Your task to perform on an android device: See recent photos Image 0: 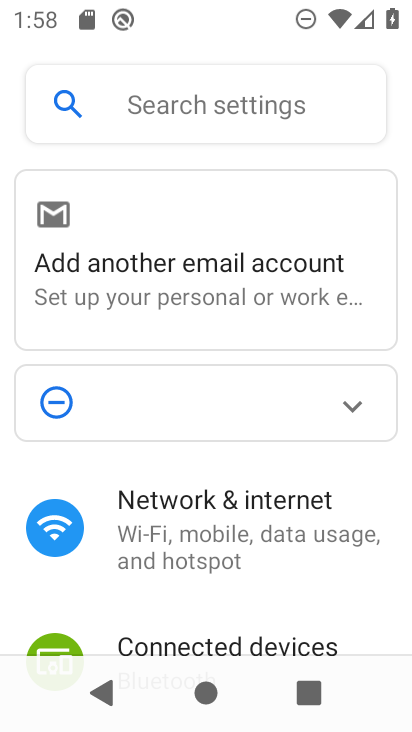
Step 0: press home button
Your task to perform on an android device: See recent photos Image 1: 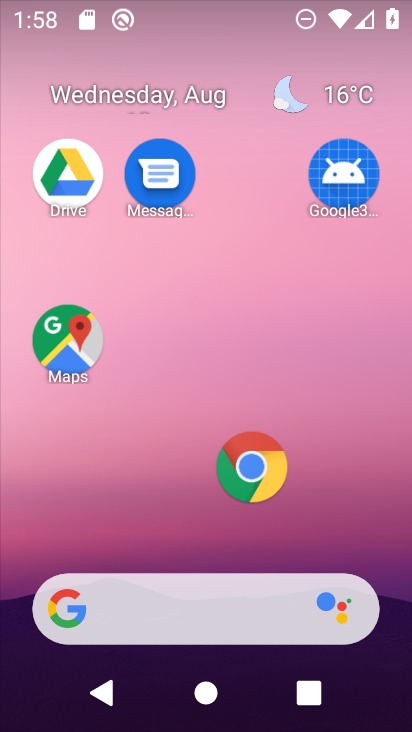
Step 1: drag from (180, 539) to (311, 2)
Your task to perform on an android device: See recent photos Image 2: 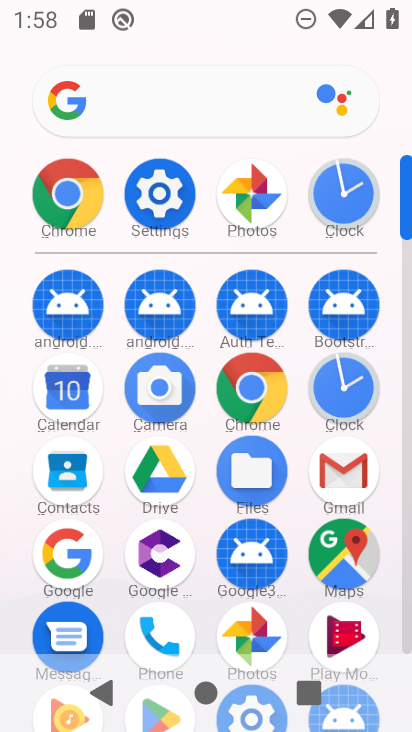
Step 2: click (265, 224)
Your task to perform on an android device: See recent photos Image 3: 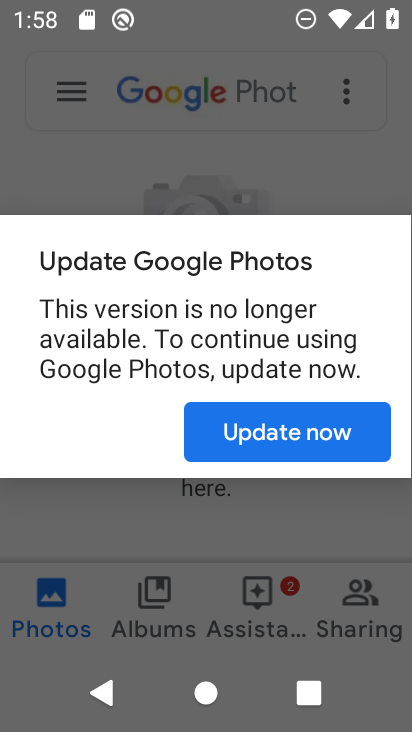
Step 3: click (241, 458)
Your task to perform on an android device: See recent photos Image 4: 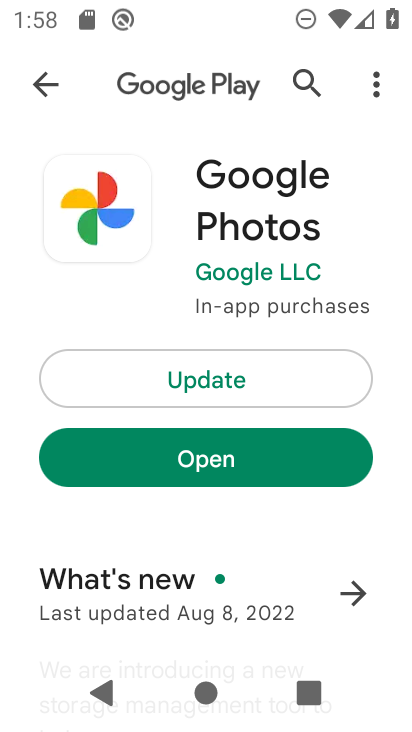
Step 4: click (225, 462)
Your task to perform on an android device: See recent photos Image 5: 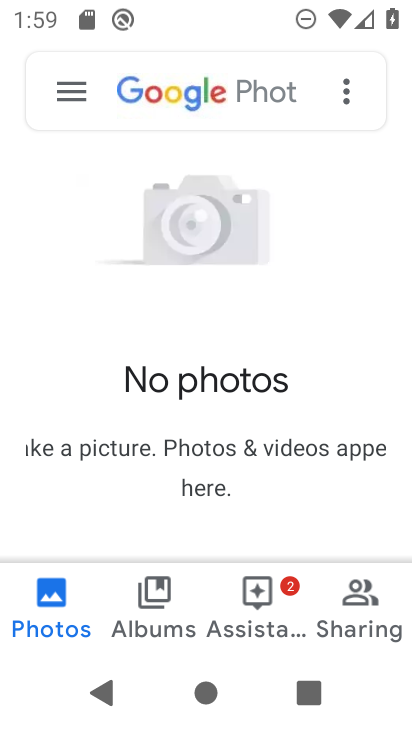
Step 5: task complete